Your task to perform on an android device: Open CNN.com Image 0: 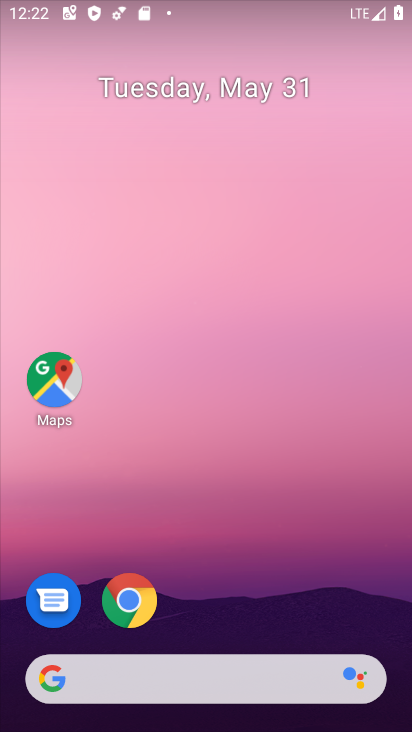
Step 0: click (126, 600)
Your task to perform on an android device: Open CNN.com Image 1: 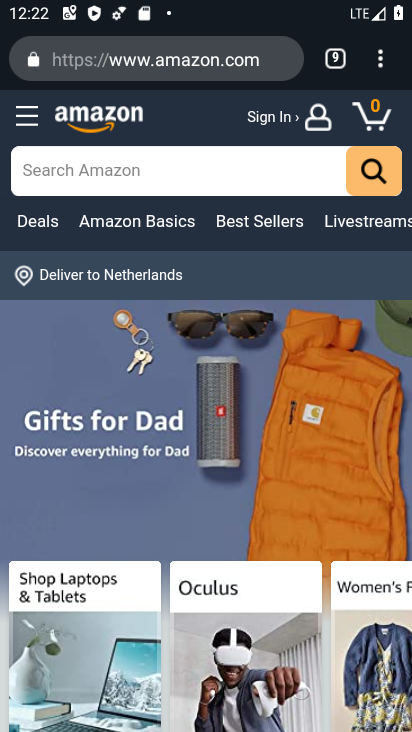
Step 1: click (383, 70)
Your task to perform on an android device: Open CNN.com Image 2: 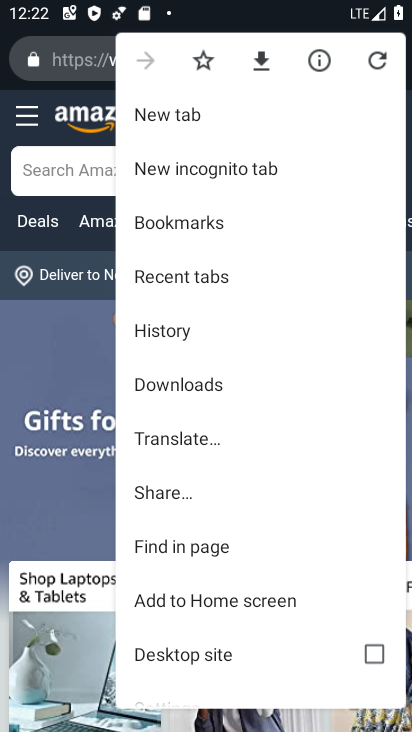
Step 2: click (165, 116)
Your task to perform on an android device: Open CNN.com Image 3: 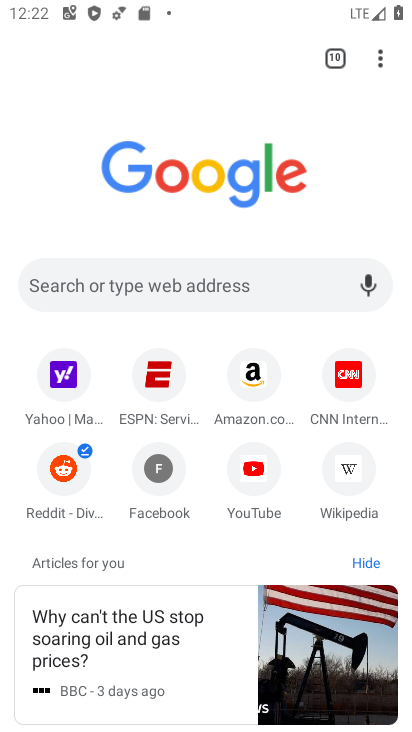
Step 3: click (202, 285)
Your task to perform on an android device: Open CNN.com Image 4: 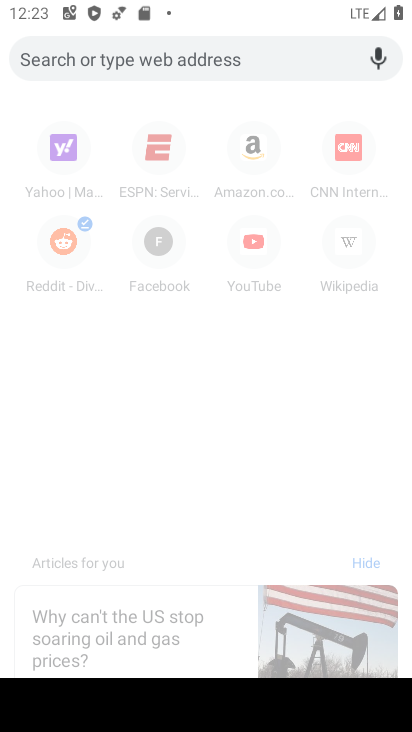
Step 4: type "CNN.com"
Your task to perform on an android device: Open CNN.com Image 5: 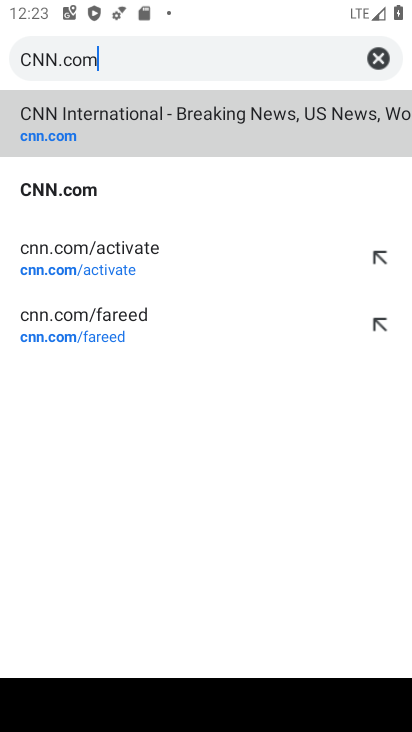
Step 5: click (56, 116)
Your task to perform on an android device: Open CNN.com Image 6: 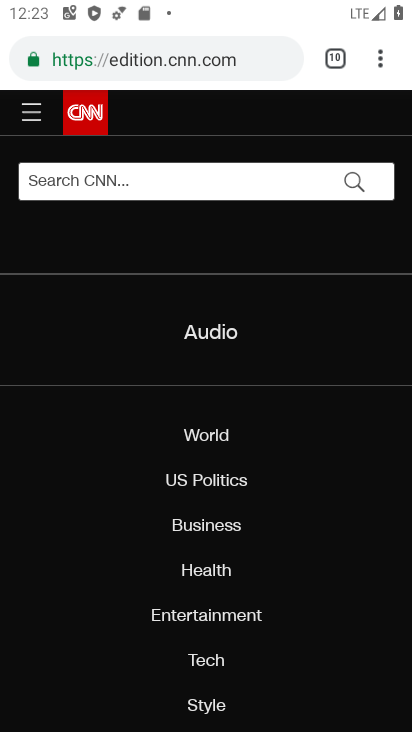
Step 6: task complete